Your task to perform on an android device: toggle notifications settings in the gmail app Image 0: 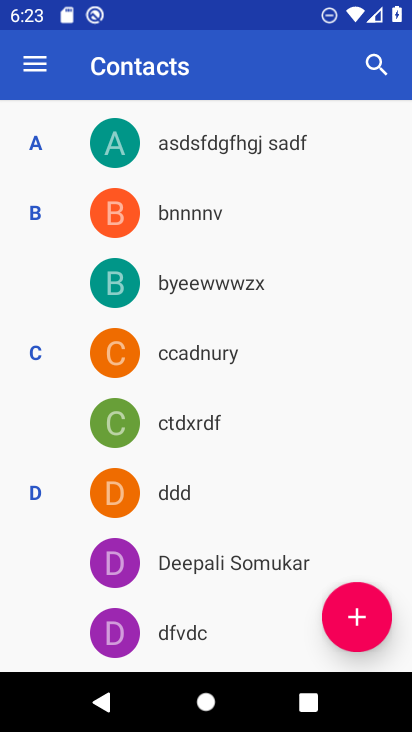
Step 0: press home button
Your task to perform on an android device: toggle notifications settings in the gmail app Image 1: 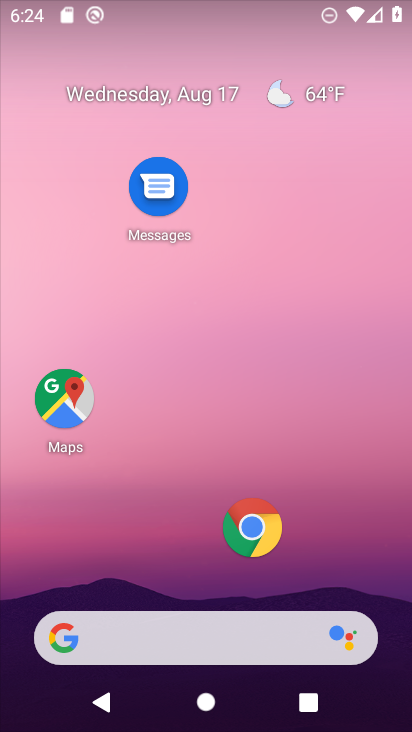
Step 1: drag from (137, 615) to (135, 220)
Your task to perform on an android device: toggle notifications settings in the gmail app Image 2: 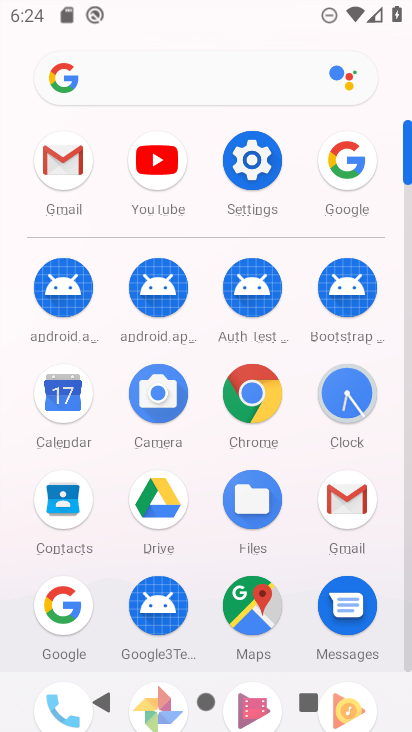
Step 2: click (59, 169)
Your task to perform on an android device: toggle notifications settings in the gmail app Image 3: 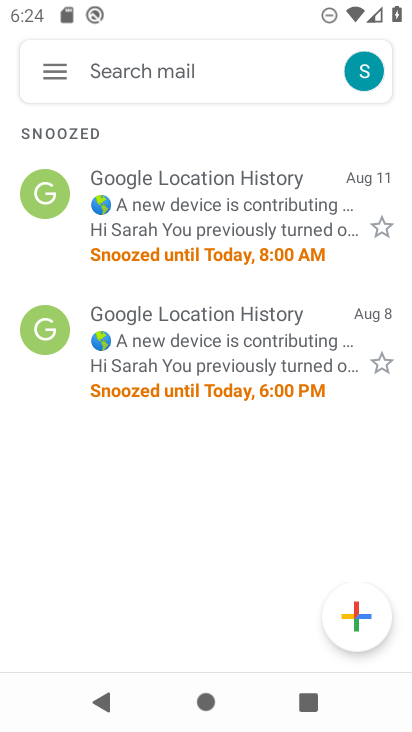
Step 3: click (35, 76)
Your task to perform on an android device: toggle notifications settings in the gmail app Image 4: 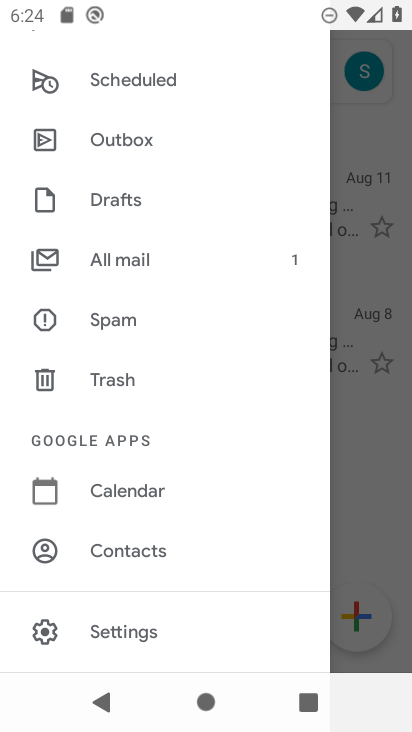
Step 4: click (126, 643)
Your task to perform on an android device: toggle notifications settings in the gmail app Image 5: 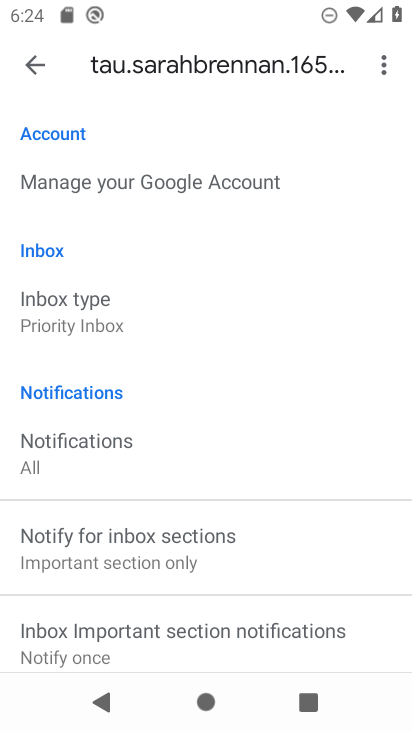
Step 5: drag from (88, 612) to (95, 342)
Your task to perform on an android device: toggle notifications settings in the gmail app Image 6: 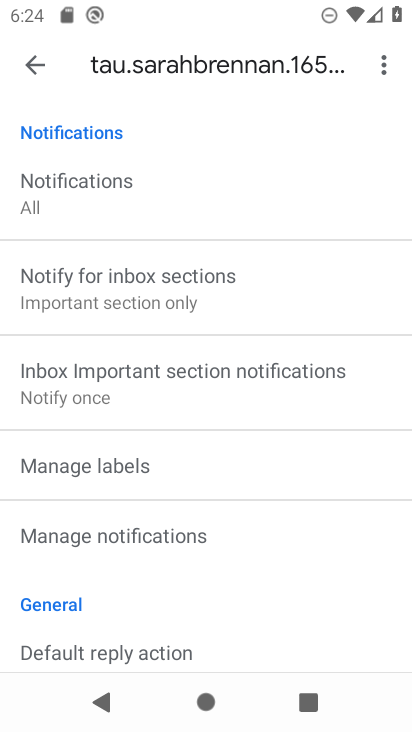
Step 6: drag from (63, 638) to (63, 349)
Your task to perform on an android device: toggle notifications settings in the gmail app Image 7: 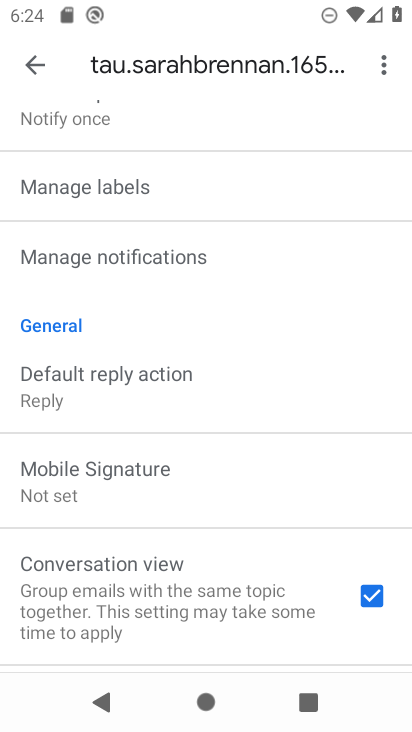
Step 7: drag from (67, 150) to (46, 577)
Your task to perform on an android device: toggle notifications settings in the gmail app Image 8: 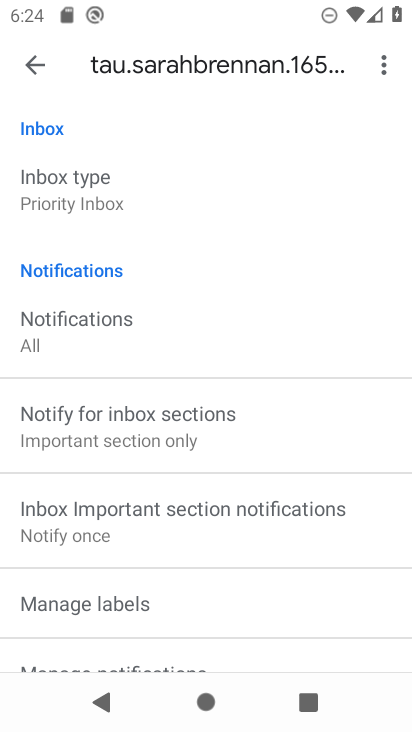
Step 8: drag from (69, 631) to (87, 318)
Your task to perform on an android device: toggle notifications settings in the gmail app Image 9: 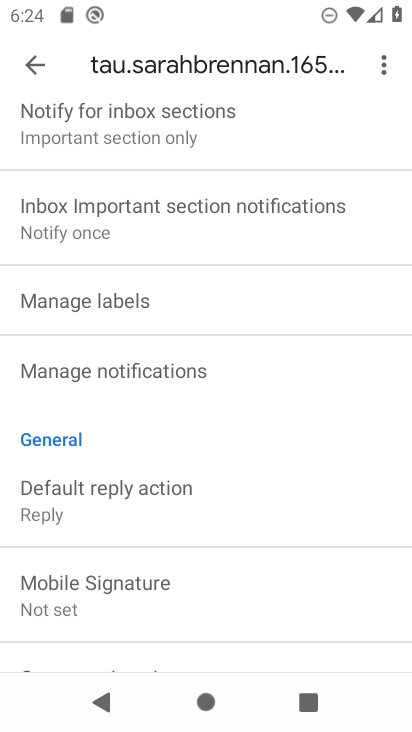
Step 9: click (88, 374)
Your task to perform on an android device: toggle notifications settings in the gmail app Image 10: 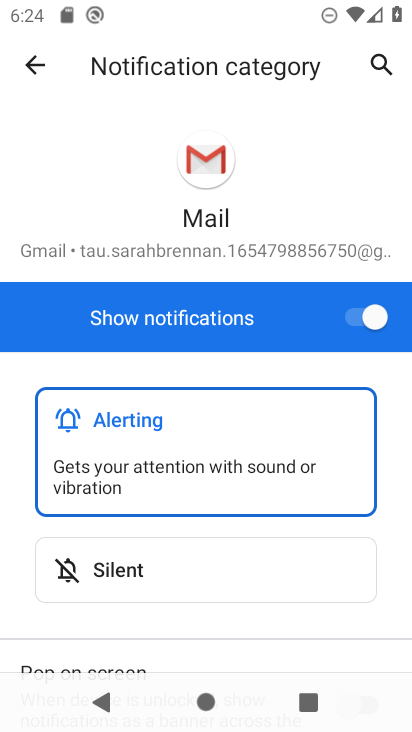
Step 10: click (366, 314)
Your task to perform on an android device: toggle notifications settings in the gmail app Image 11: 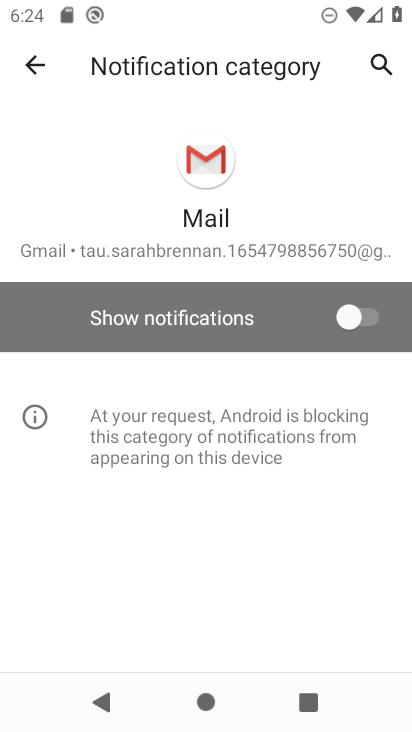
Step 11: task complete